Your task to perform on an android device: see sites visited before in the chrome app Image 0: 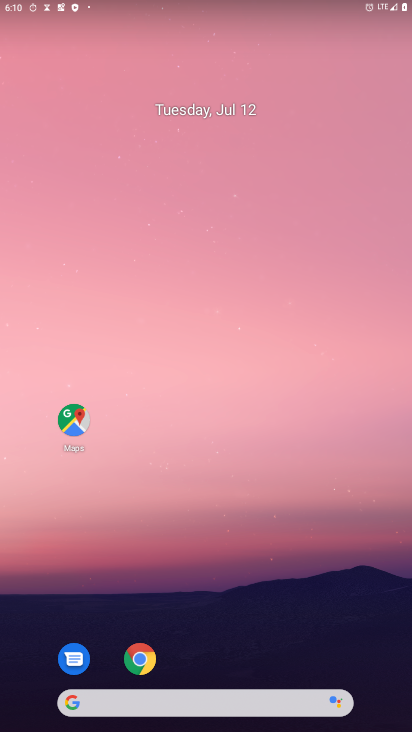
Step 0: click (136, 658)
Your task to perform on an android device: see sites visited before in the chrome app Image 1: 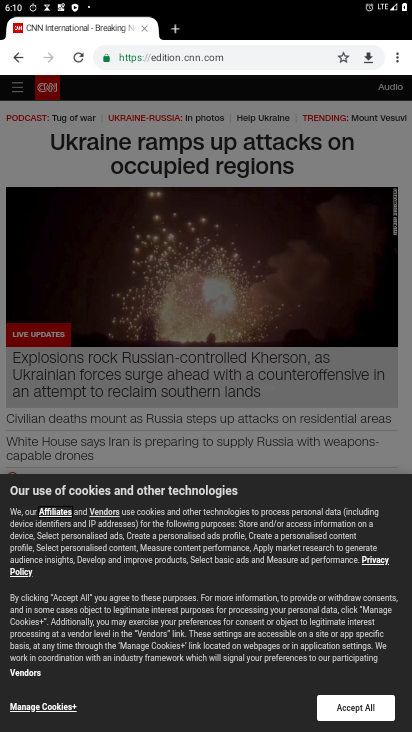
Step 1: click (395, 53)
Your task to perform on an android device: see sites visited before in the chrome app Image 2: 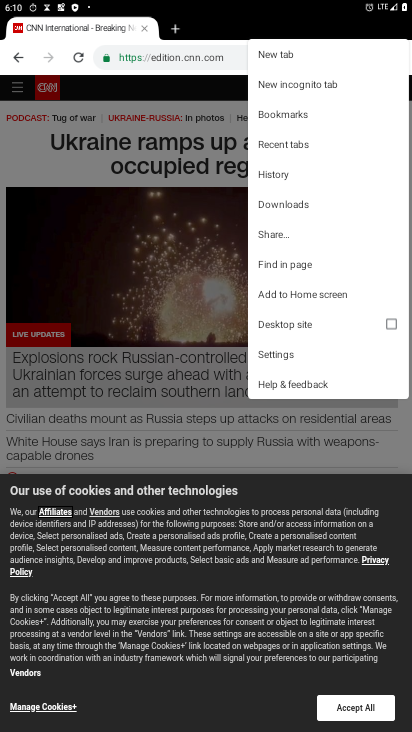
Step 2: click (397, 53)
Your task to perform on an android device: see sites visited before in the chrome app Image 3: 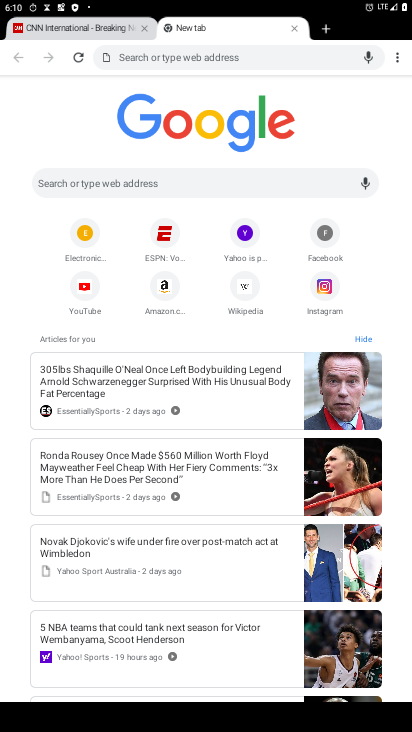
Step 3: click (273, 185)
Your task to perform on an android device: see sites visited before in the chrome app Image 4: 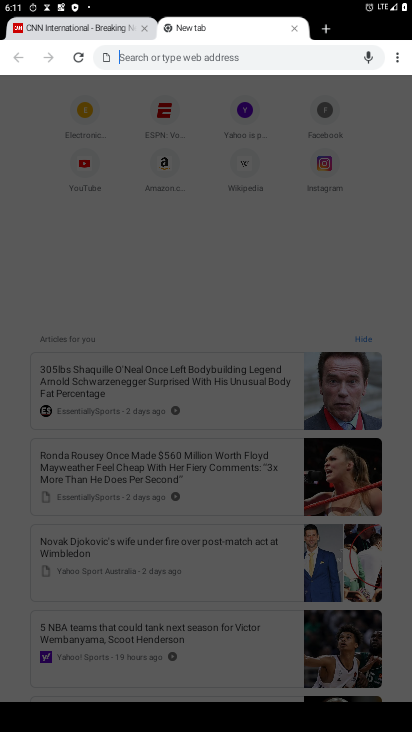
Step 4: click (398, 57)
Your task to perform on an android device: see sites visited before in the chrome app Image 5: 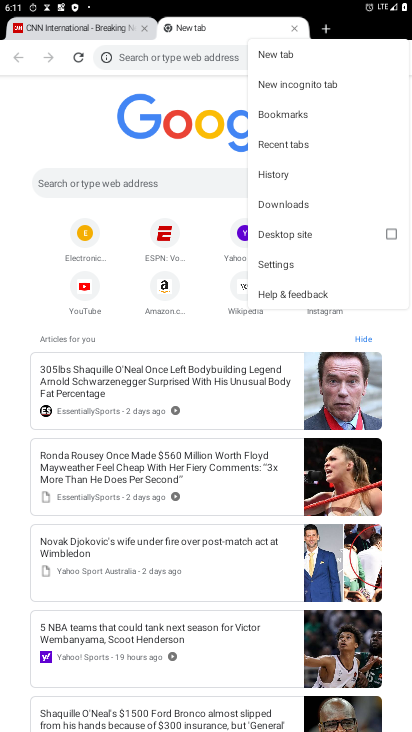
Step 5: click (284, 169)
Your task to perform on an android device: see sites visited before in the chrome app Image 6: 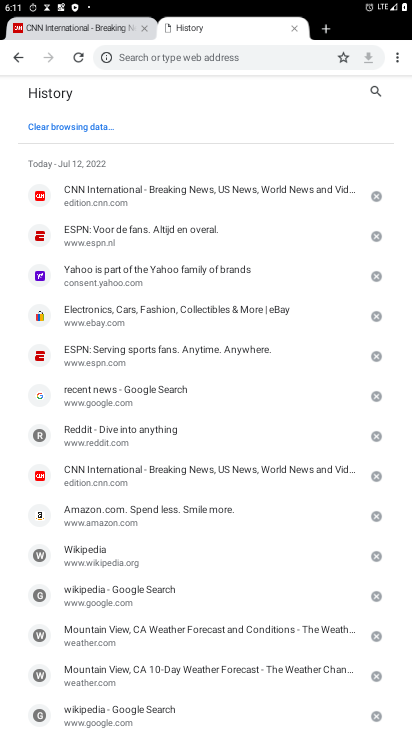
Step 6: task complete